Your task to perform on an android device: turn off location history Image 0: 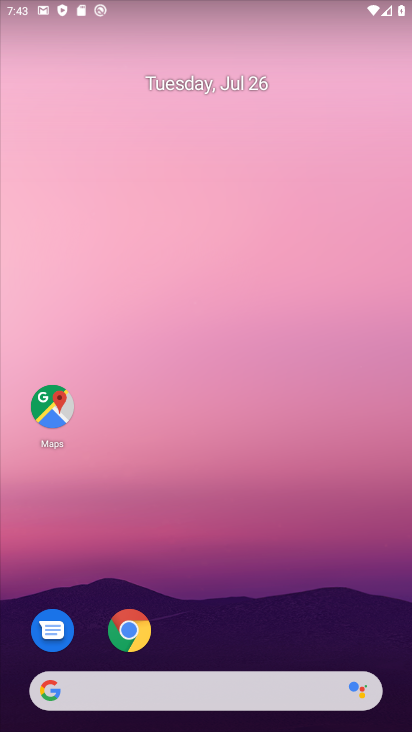
Step 0: drag from (312, 660) to (248, 188)
Your task to perform on an android device: turn off location history Image 1: 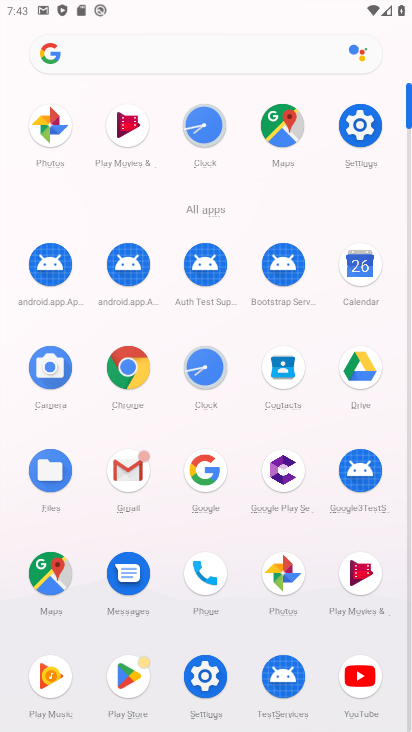
Step 1: click (193, 658)
Your task to perform on an android device: turn off location history Image 2: 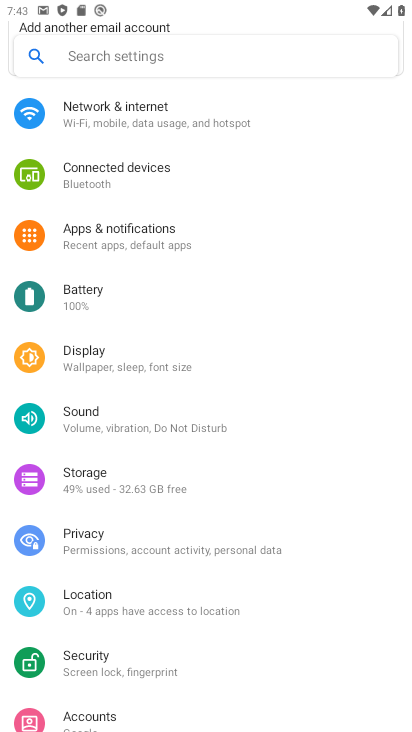
Step 2: click (193, 619)
Your task to perform on an android device: turn off location history Image 3: 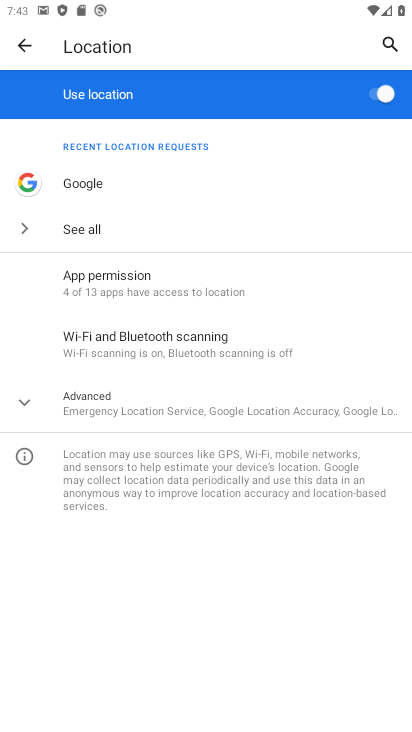
Step 3: click (211, 389)
Your task to perform on an android device: turn off location history Image 4: 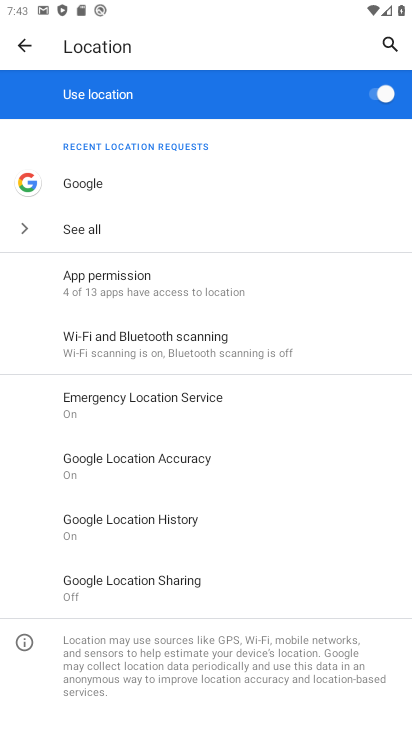
Step 4: click (195, 518)
Your task to perform on an android device: turn off location history Image 5: 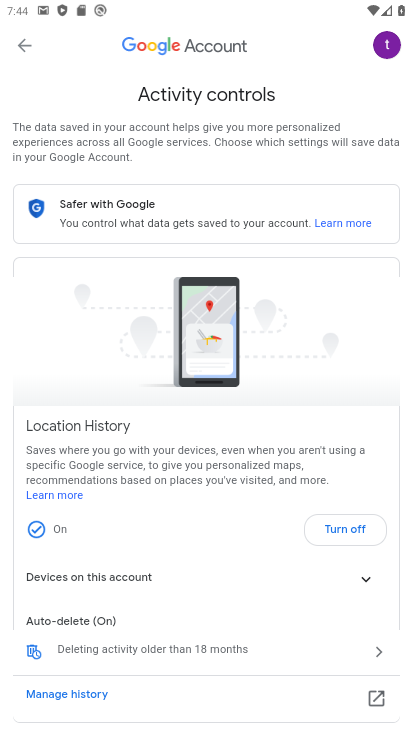
Step 5: click (364, 532)
Your task to perform on an android device: turn off location history Image 6: 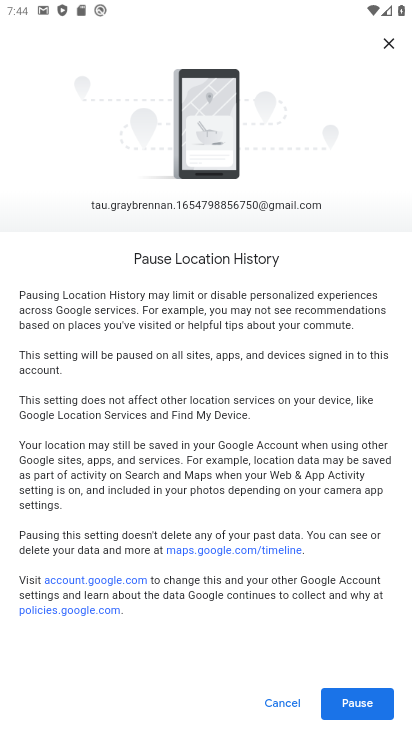
Step 6: click (349, 707)
Your task to perform on an android device: turn off location history Image 7: 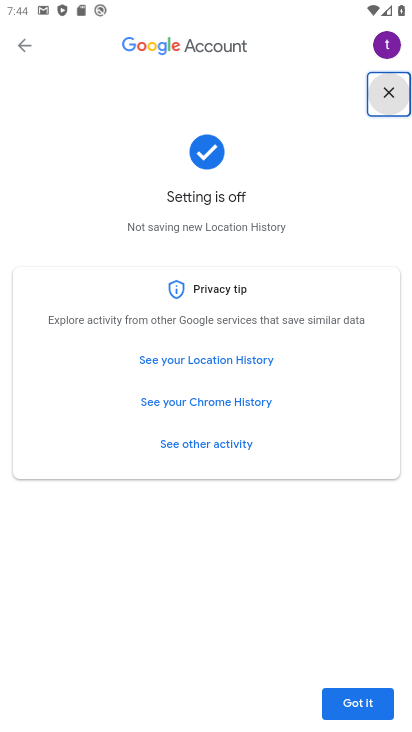
Step 7: click (349, 707)
Your task to perform on an android device: turn off location history Image 8: 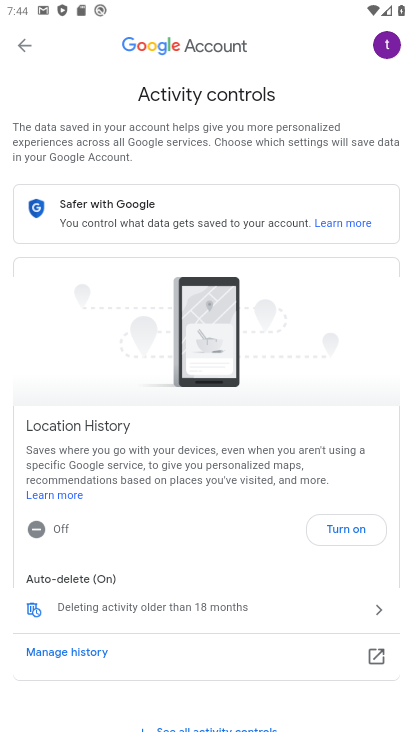
Step 8: task complete